Your task to perform on an android device: Show me popular videos on Youtube Image 0: 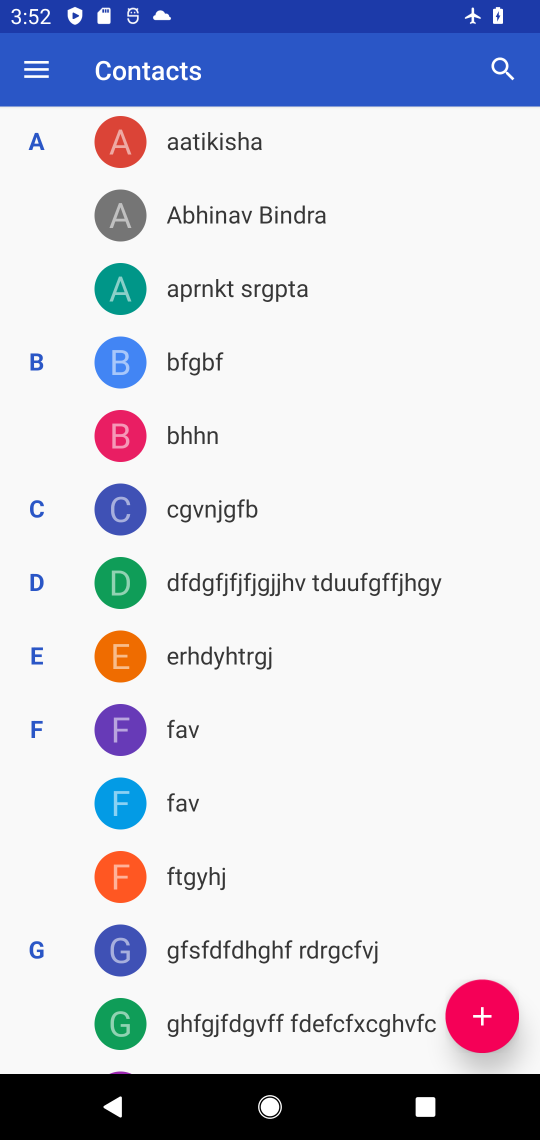
Step 0: press home button
Your task to perform on an android device: Show me popular videos on Youtube Image 1: 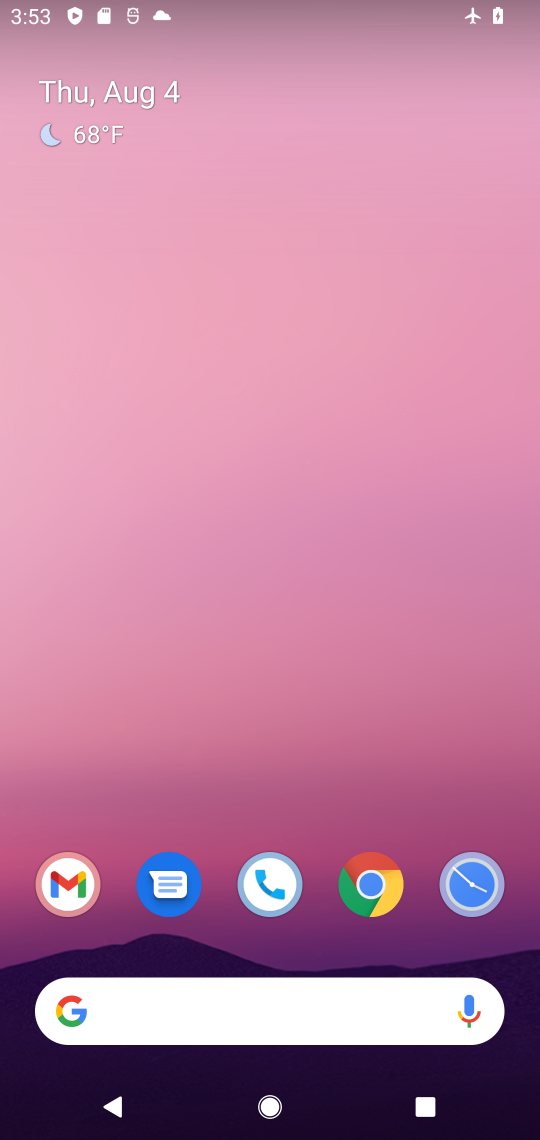
Step 1: drag from (303, 951) to (298, 332)
Your task to perform on an android device: Show me popular videos on Youtube Image 2: 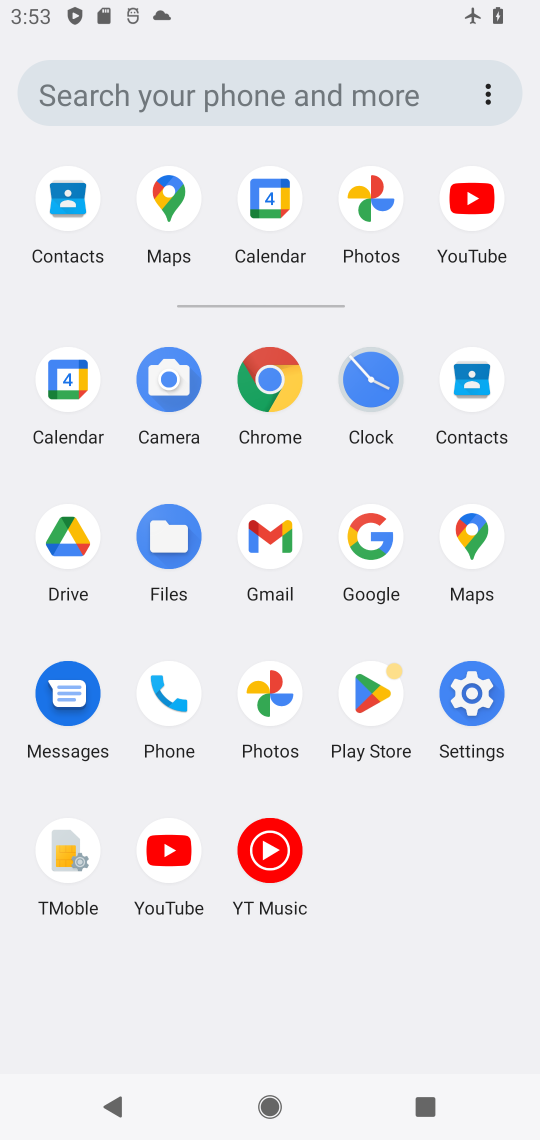
Step 2: click (156, 850)
Your task to perform on an android device: Show me popular videos on Youtube Image 3: 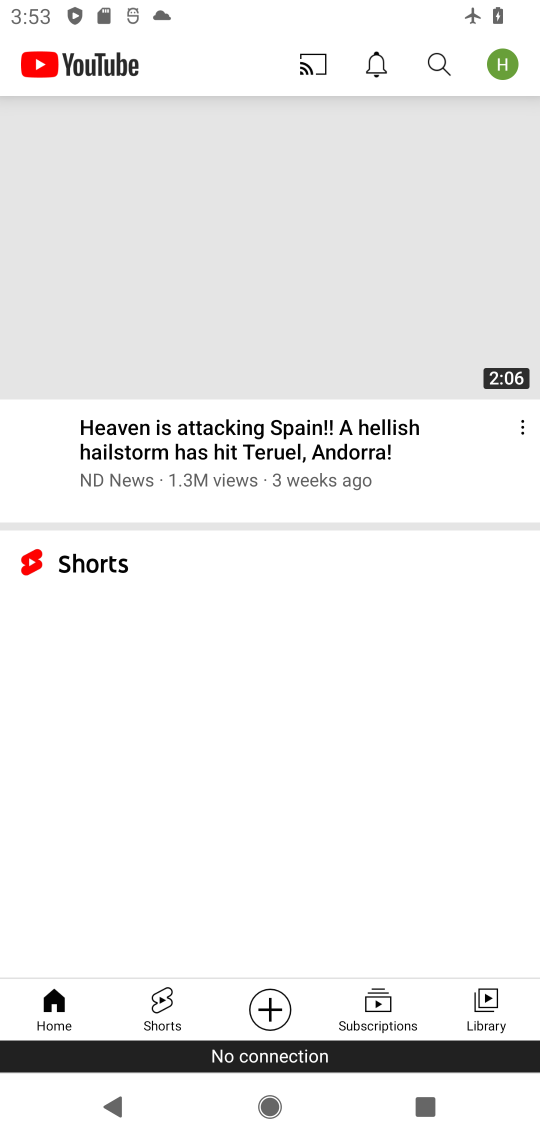
Step 3: click (443, 62)
Your task to perform on an android device: Show me popular videos on Youtube Image 4: 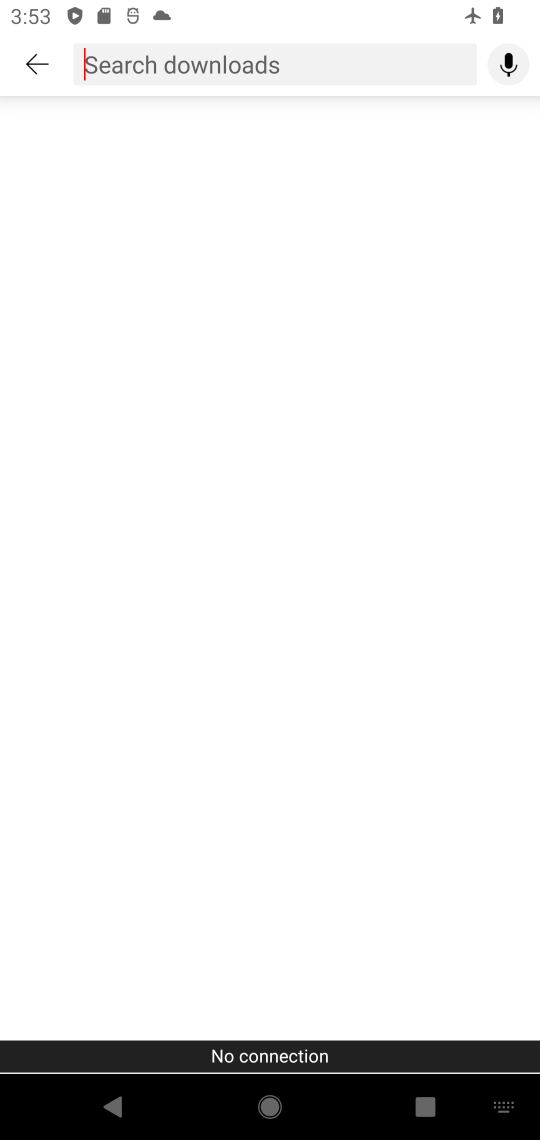
Step 4: type "india "
Your task to perform on an android device: Show me popular videos on Youtube Image 5: 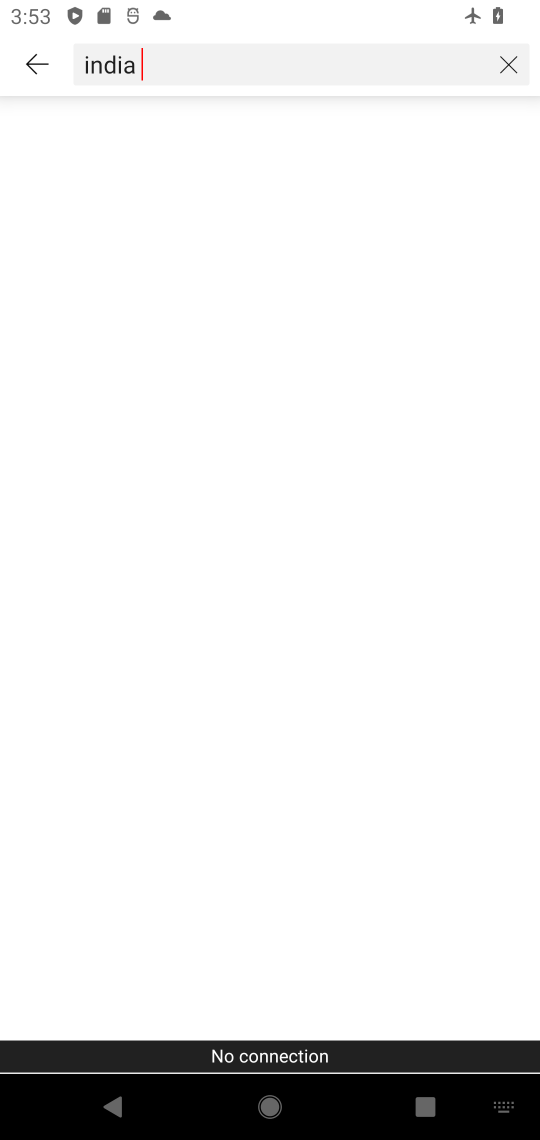
Step 5: click (261, 56)
Your task to perform on an android device: Show me popular videos on Youtube Image 6: 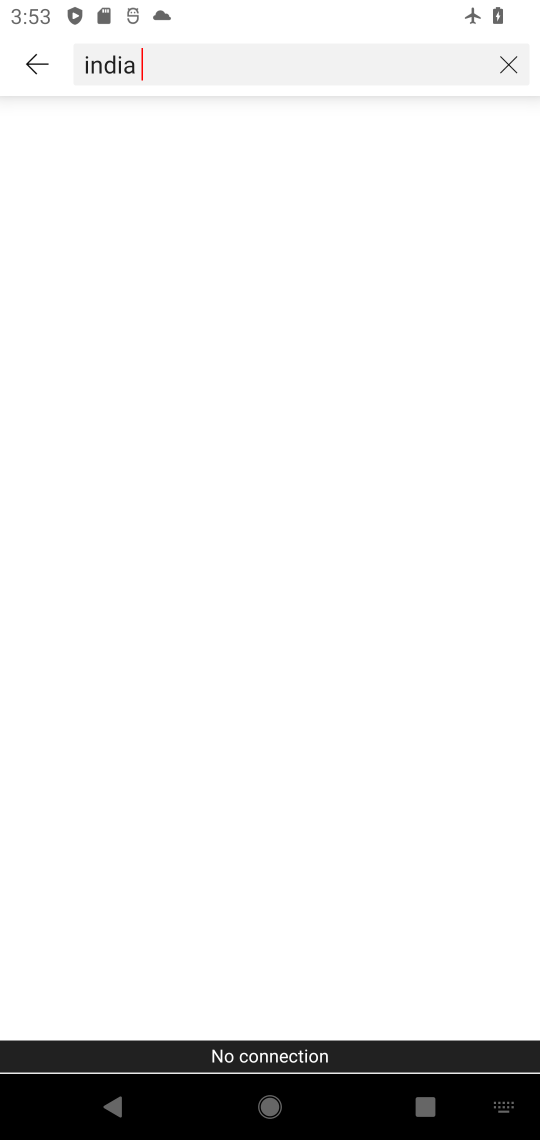
Step 6: type "love "
Your task to perform on an android device: Show me popular videos on Youtube Image 7: 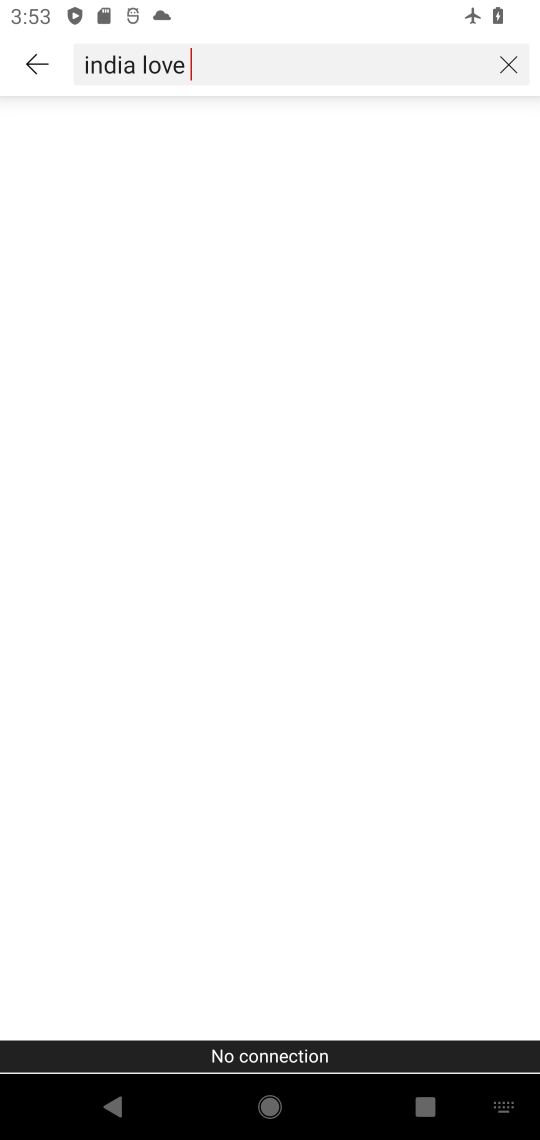
Step 7: task complete